Your task to perform on an android device: Search for a new phone on Amazon. Image 0: 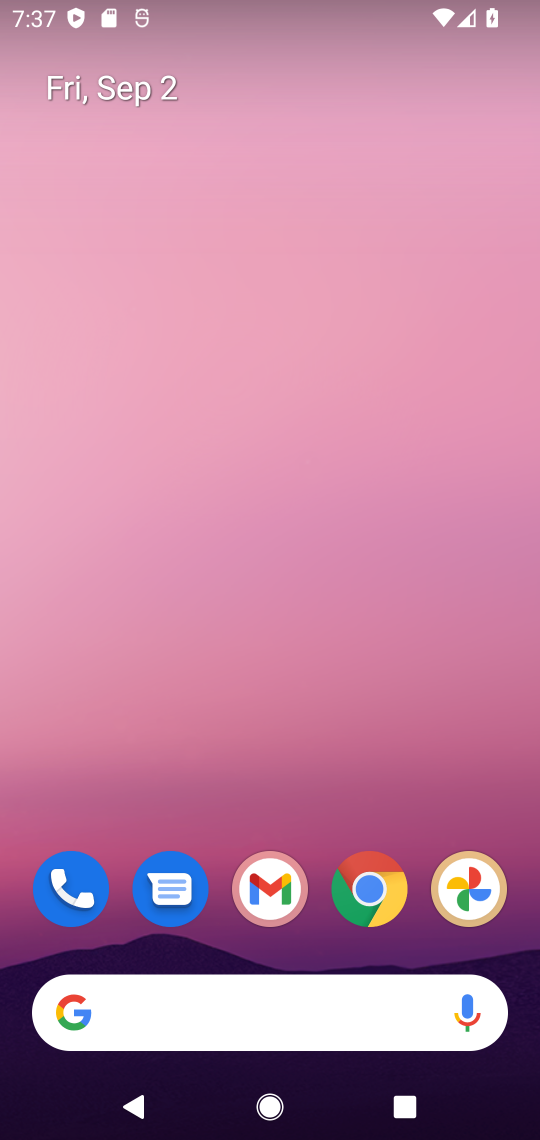
Step 0: click (338, 1016)
Your task to perform on an android device: Search for a new phone on Amazon. Image 1: 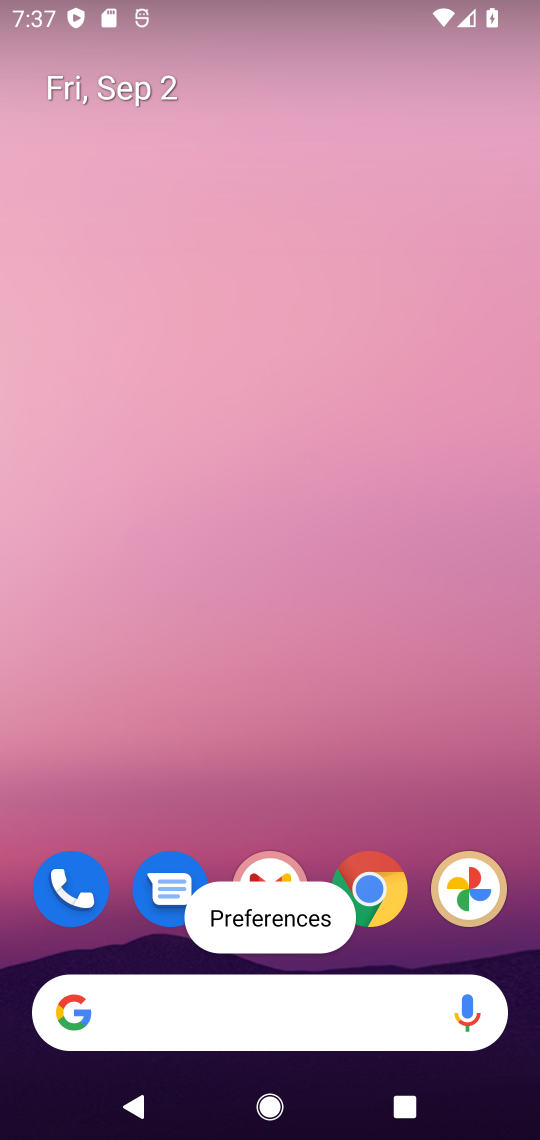
Step 1: click (309, 1020)
Your task to perform on an android device: Search for a new phone on Amazon. Image 2: 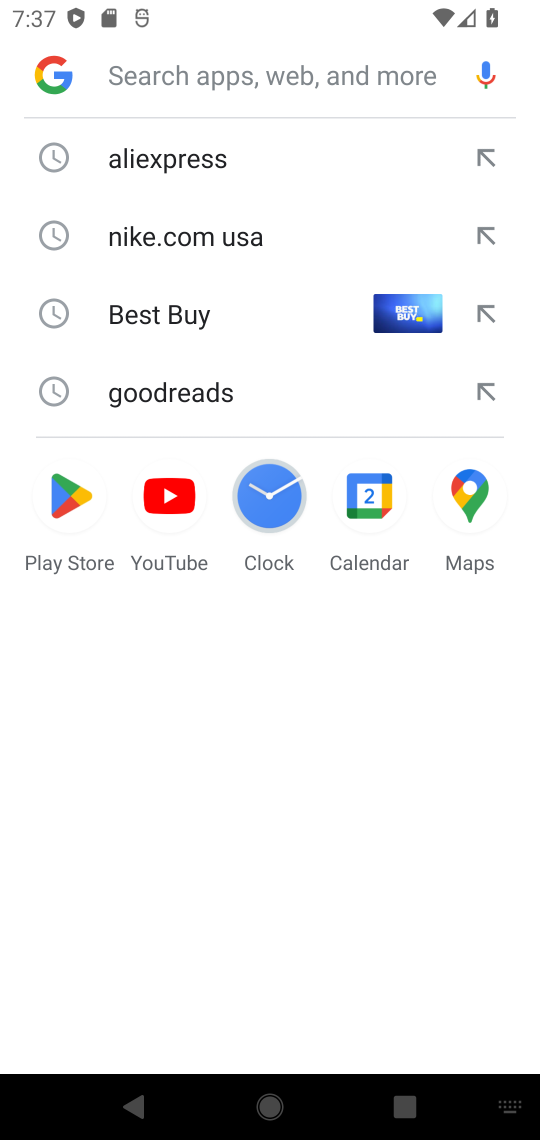
Step 2: type "Amazon"
Your task to perform on an android device: Search for a new phone on Amazon. Image 3: 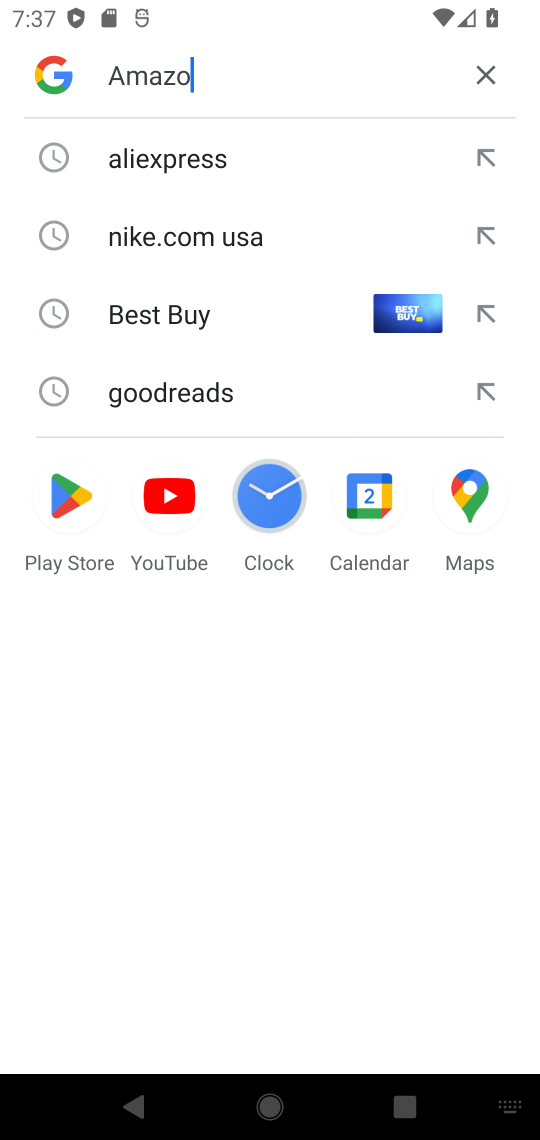
Step 3: type ""
Your task to perform on an android device: Search for a new phone on Amazon. Image 4: 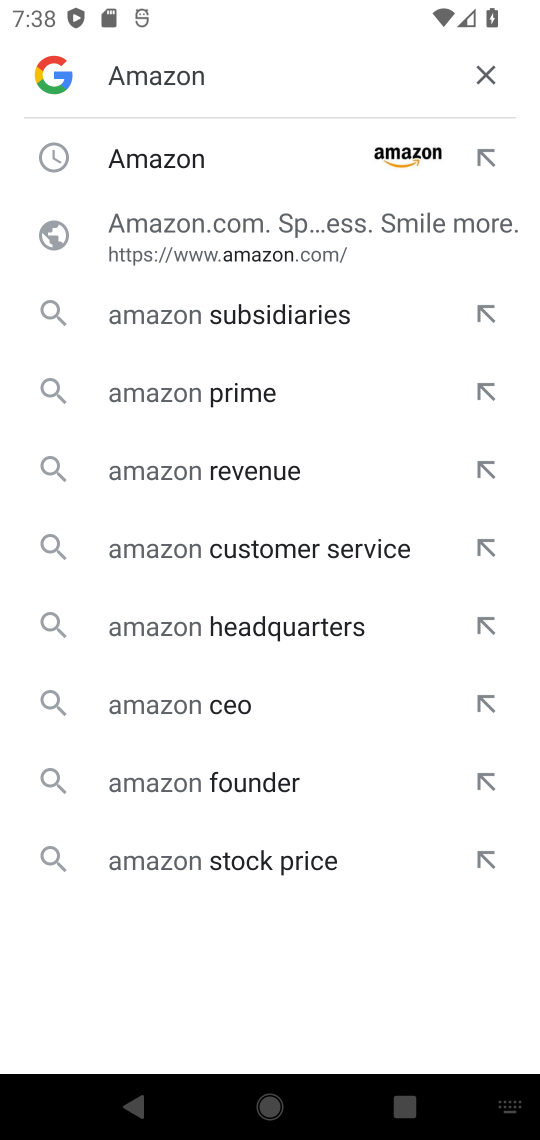
Step 4: click (173, 159)
Your task to perform on an android device: Search for a new phone on Amazon. Image 5: 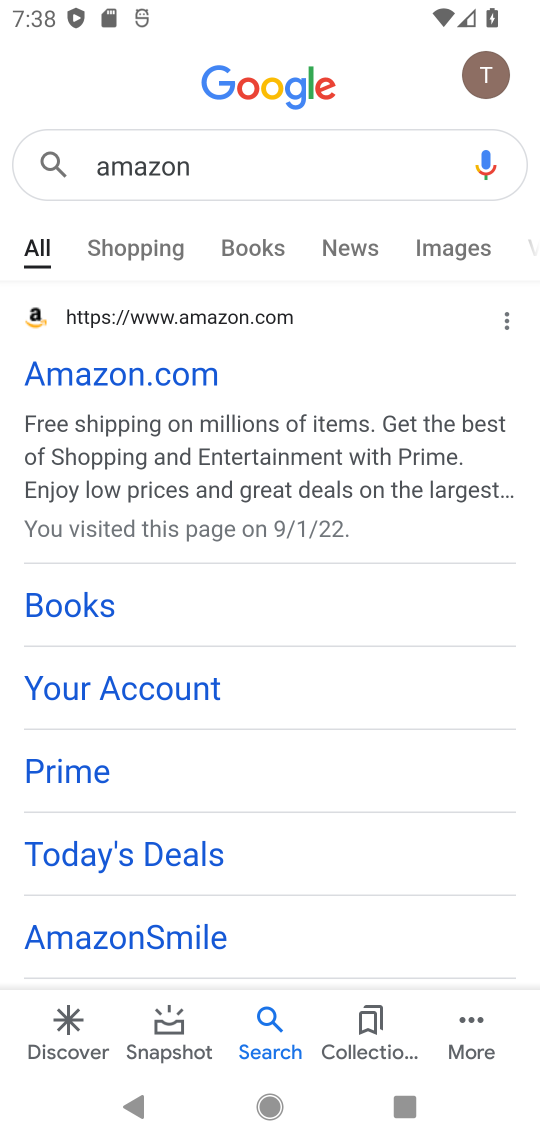
Step 5: click (123, 385)
Your task to perform on an android device: Search for a new phone on Amazon. Image 6: 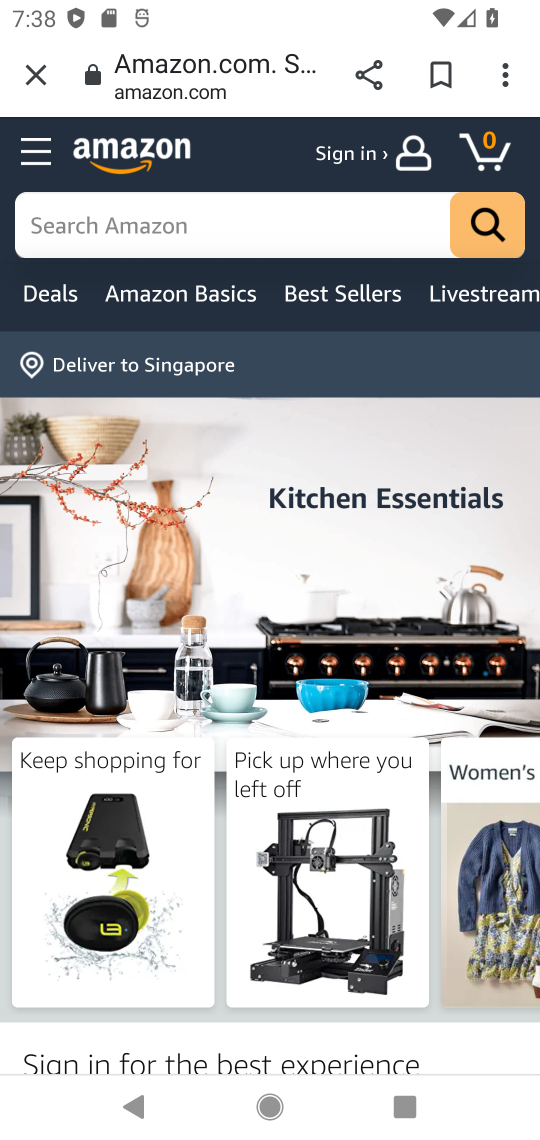
Step 6: click (211, 228)
Your task to perform on an android device: Search for a new phone on Amazon. Image 7: 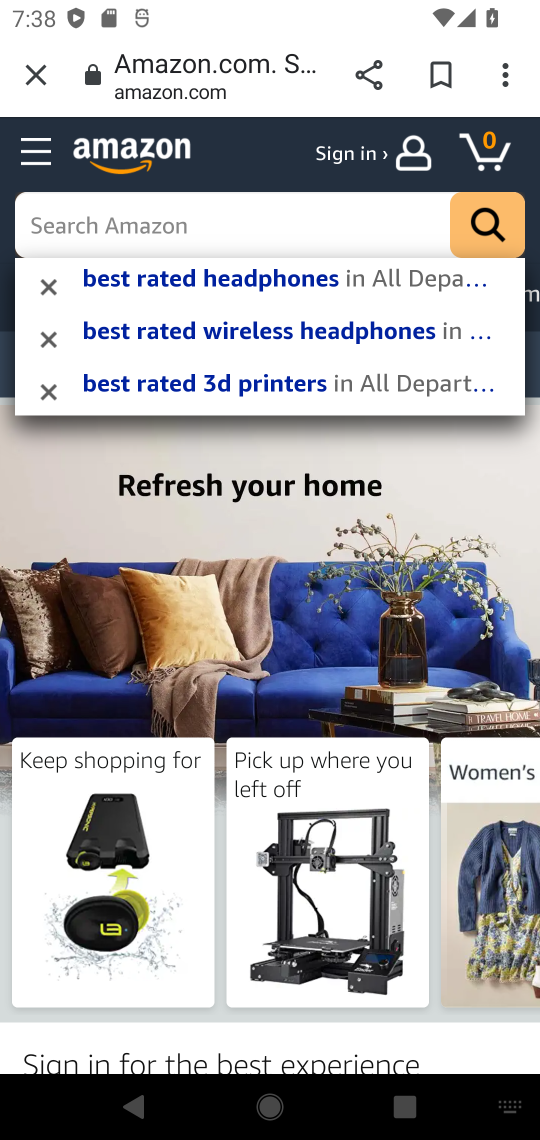
Step 7: type "samsung"
Your task to perform on an android device: Search for a new phone on Amazon. Image 8: 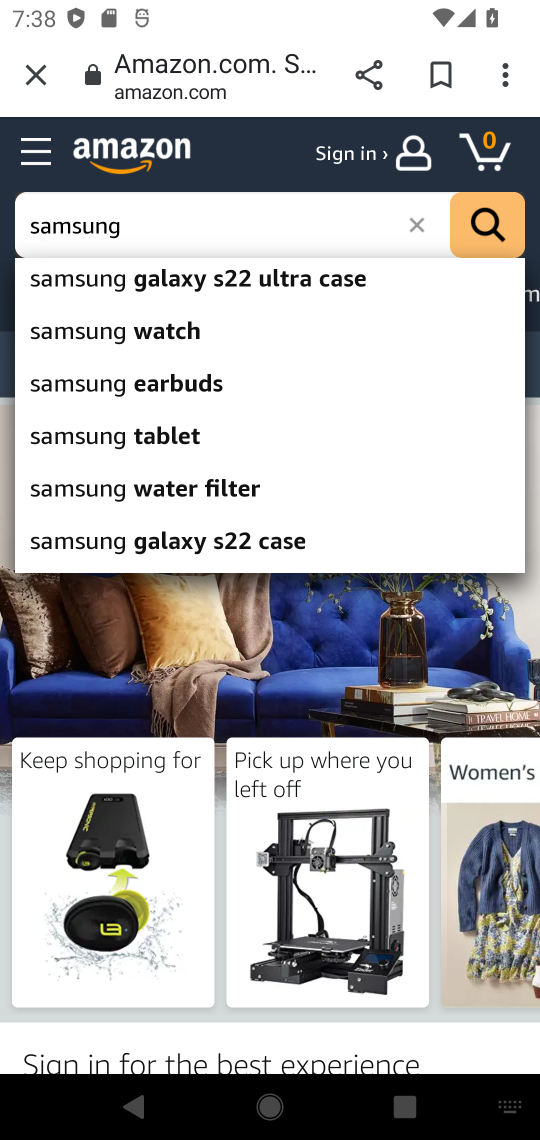
Step 8: click (470, 217)
Your task to perform on an android device: Search for a new phone on Amazon. Image 9: 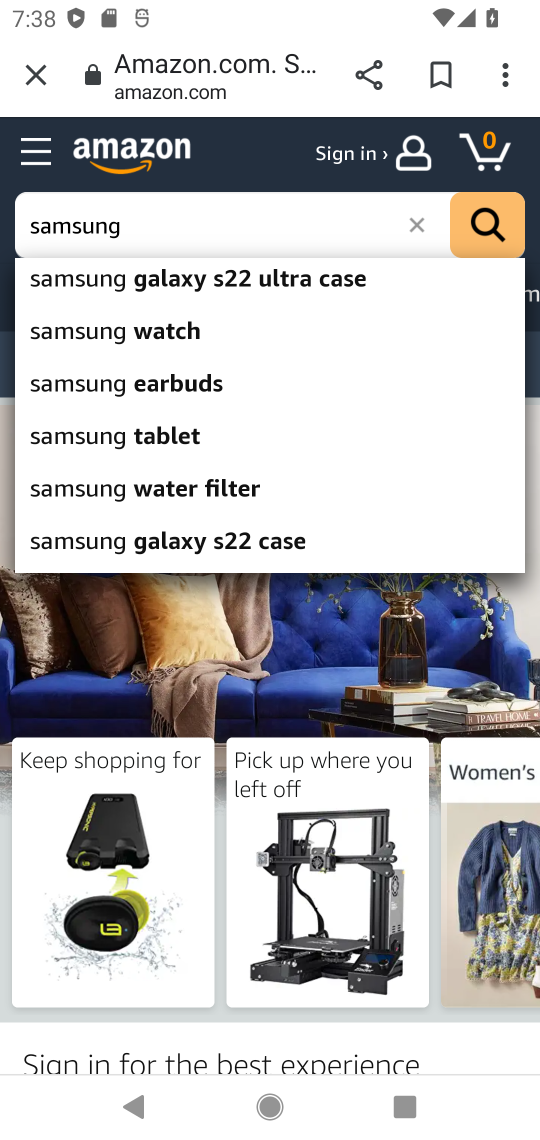
Step 9: click (473, 236)
Your task to perform on an android device: Search for a new phone on Amazon. Image 10: 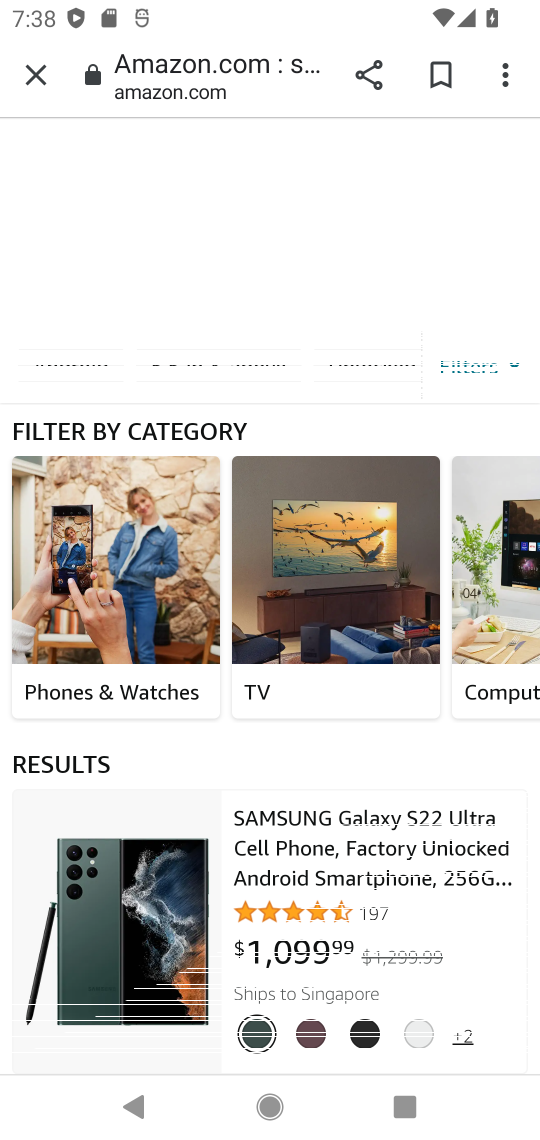
Step 10: drag from (380, 881) to (359, 491)
Your task to perform on an android device: Search for a new phone on Amazon. Image 11: 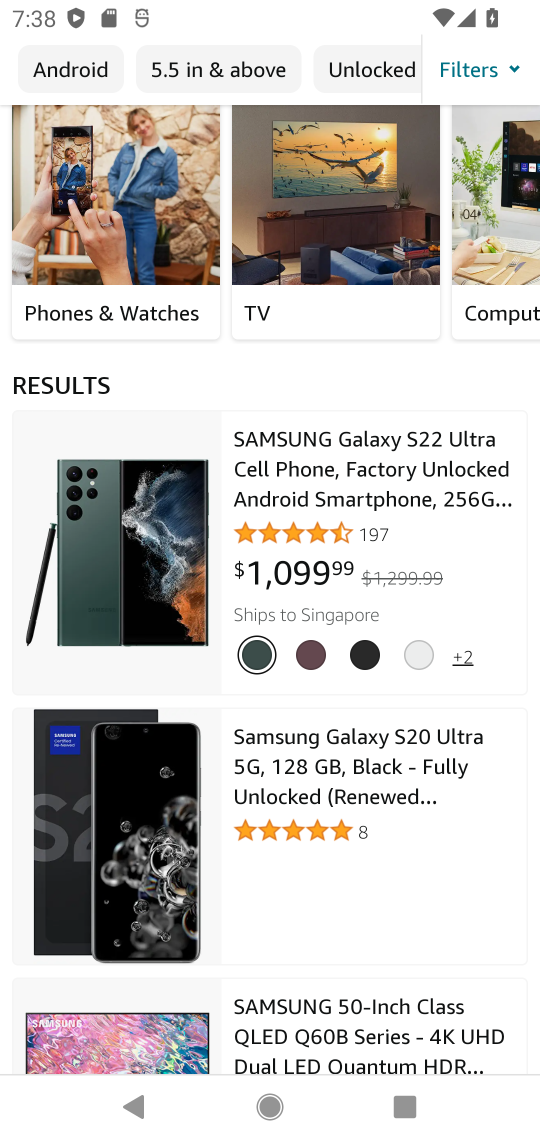
Step 11: click (508, 366)
Your task to perform on an android device: Search for a new phone on Amazon. Image 12: 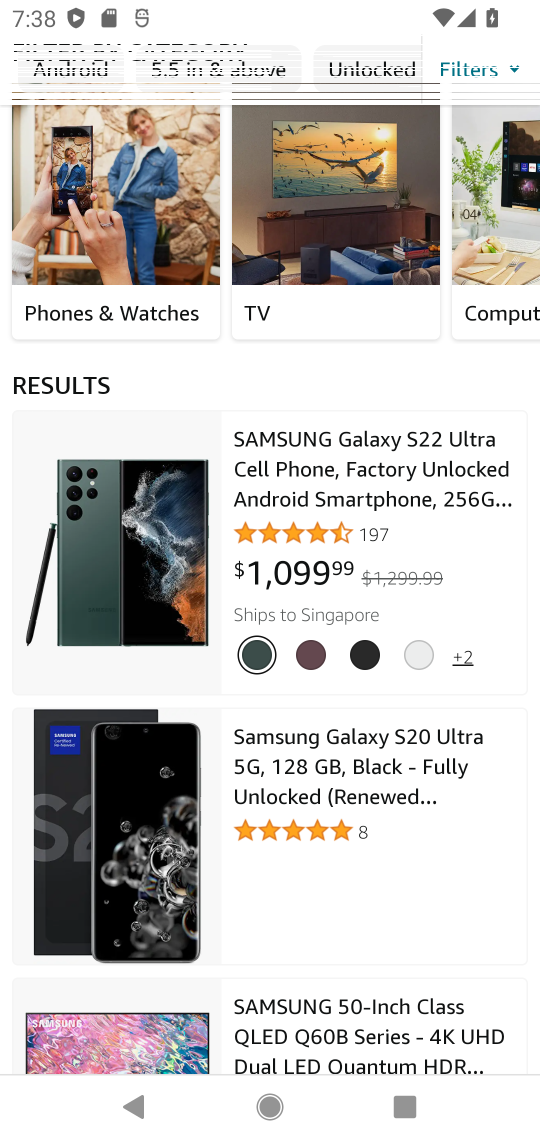
Step 12: drag from (352, 443) to (397, 342)
Your task to perform on an android device: Search for a new phone on Amazon. Image 13: 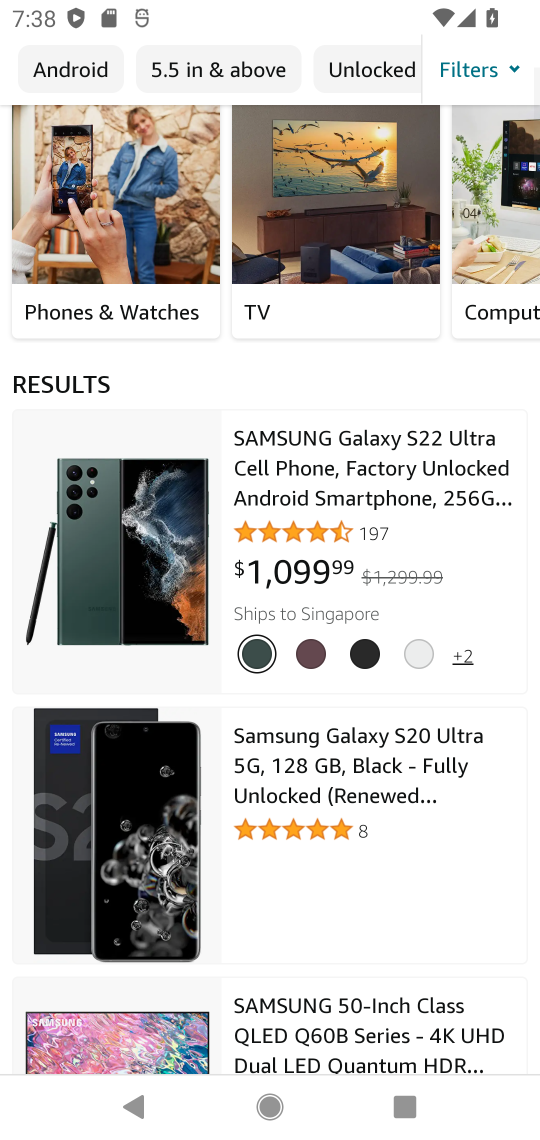
Step 13: drag from (389, 701) to (418, 376)
Your task to perform on an android device: Search for a new phone on Amazon. Image 14: 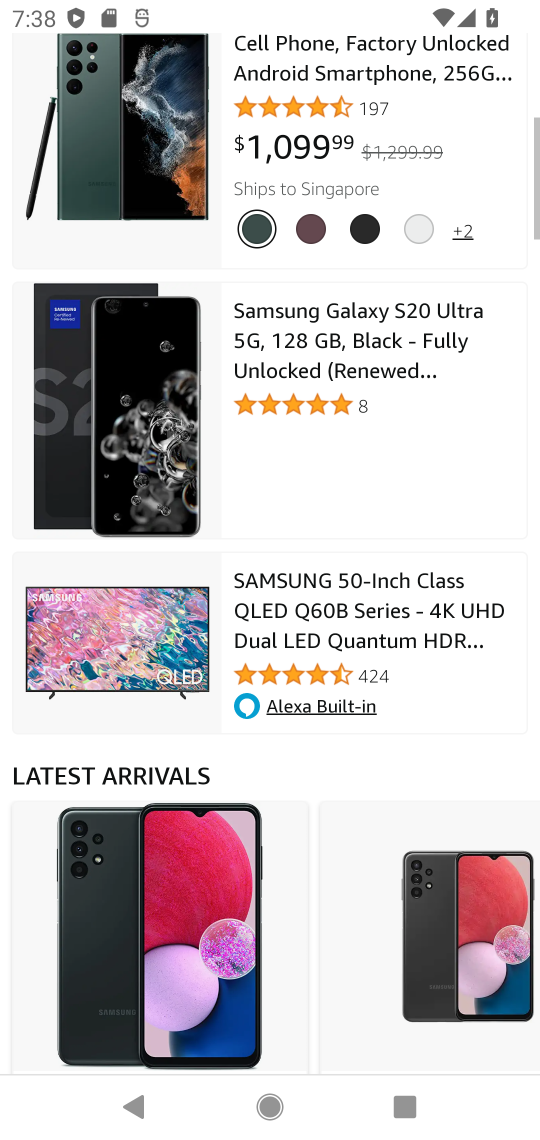
Step 14: click (444, 382)
Your task to perform on an android device: Search for a new phone on Amazon. Image 15: 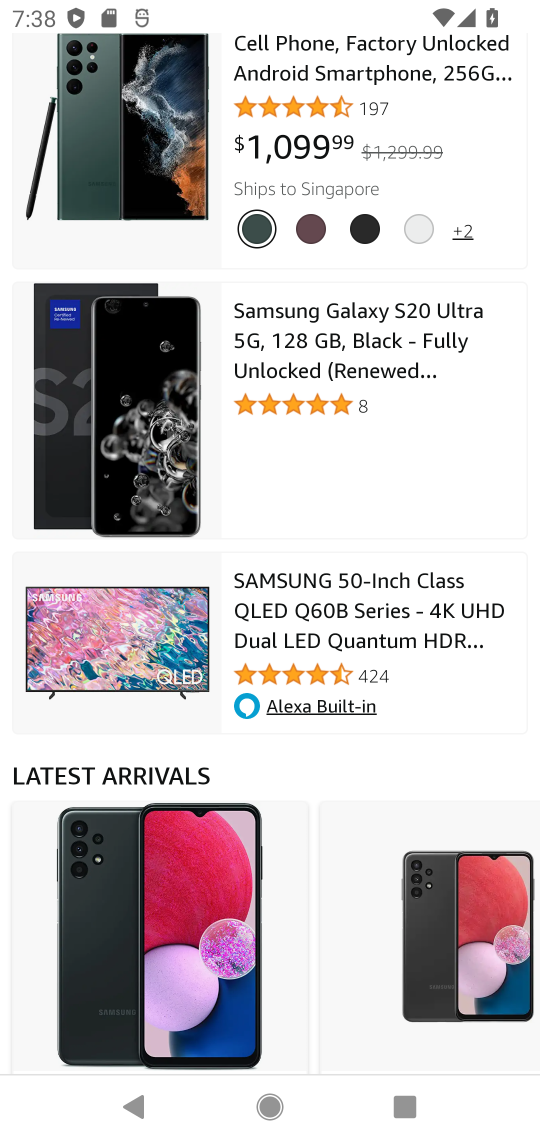
Step 15: task complete